Your task to perform on an android device: turn on airplane mode Image 0: 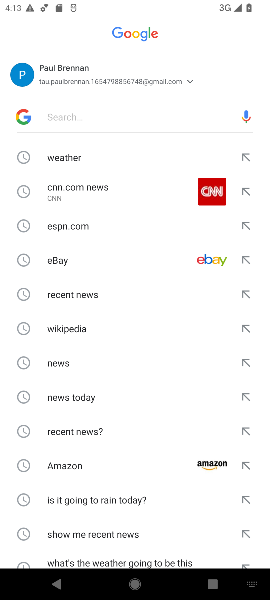
Step 0: press home button
Your task to perform on an android device: turn on airplane mode Image 1: 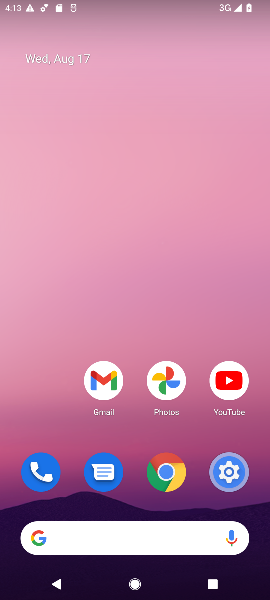
Step 1: click (236, 461)
Your task to perform on an android device: turn on airplane mode Image 2: 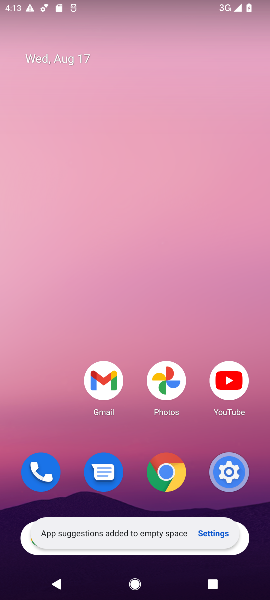
Step 2: click (225, 471)
Your task to perform on an android device: turn on airplane mode Image 3: 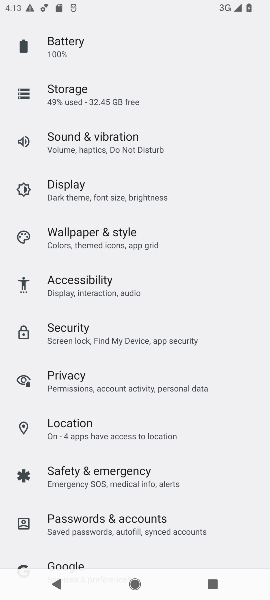
Step 3: drag from (129, 169) to (102, 546)
Your task to perform on an android device: turn on airplane mode Image 4: 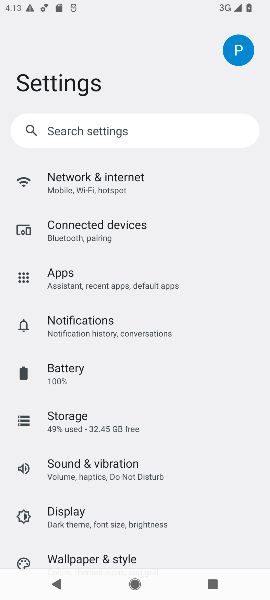
Step 4: click (110, 182)
Your task to perform on an android device: turn on airplane mode Image 5: 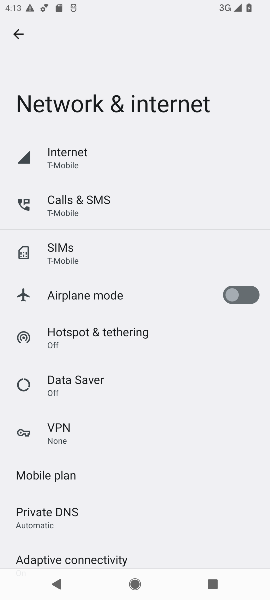
Step 5: click (250, 289)
Your task to perform on an android device: turn on airplane mode Image 6: 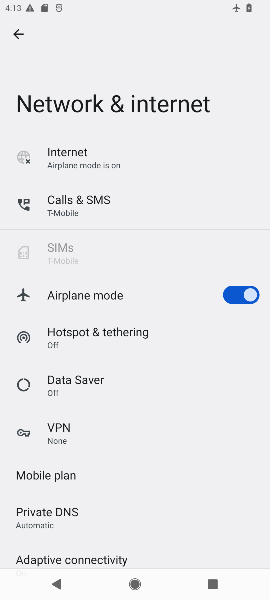
Step 6: task complete